Your task to perform on an android device: Open CNN.com Image 0: 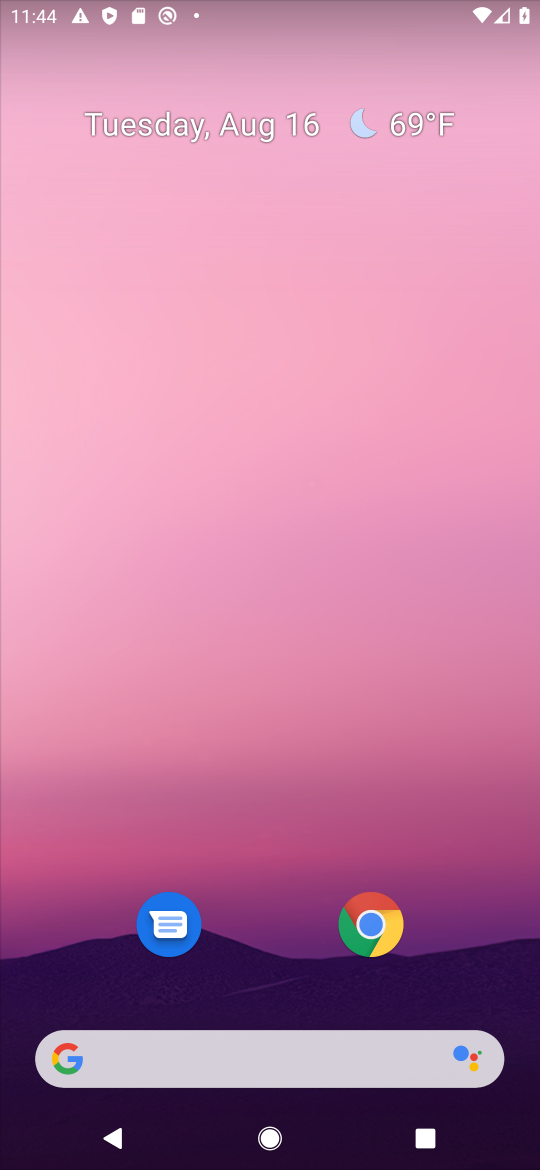
Step 0: click (179, 1073)
Your task to perform on an android device: Open CNN.com Image 1: 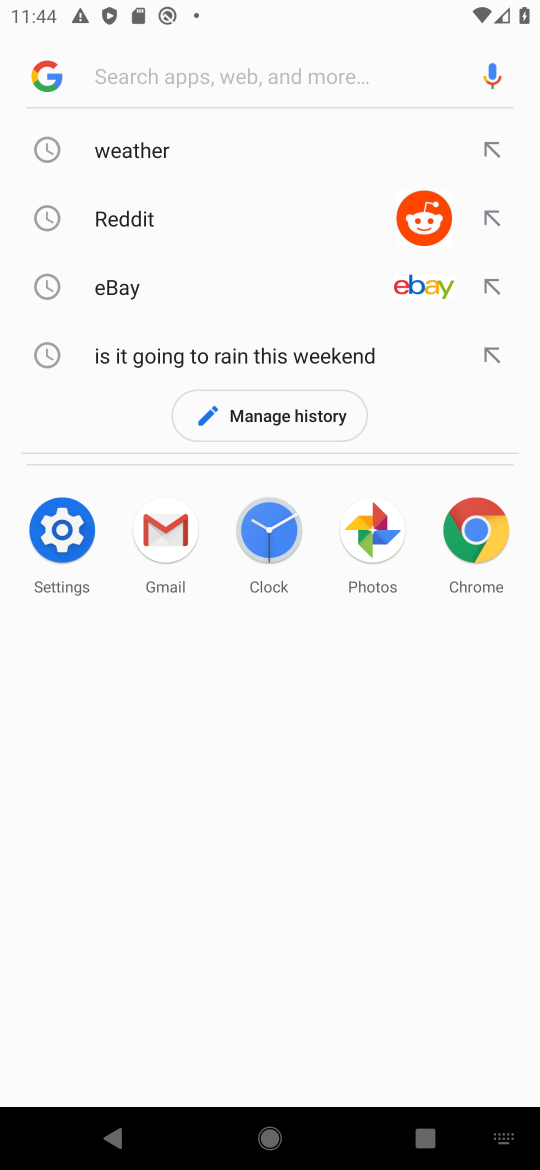
Step 1: type "cnn"
Your task to perform on an android device: Open CNN.com Image 2: 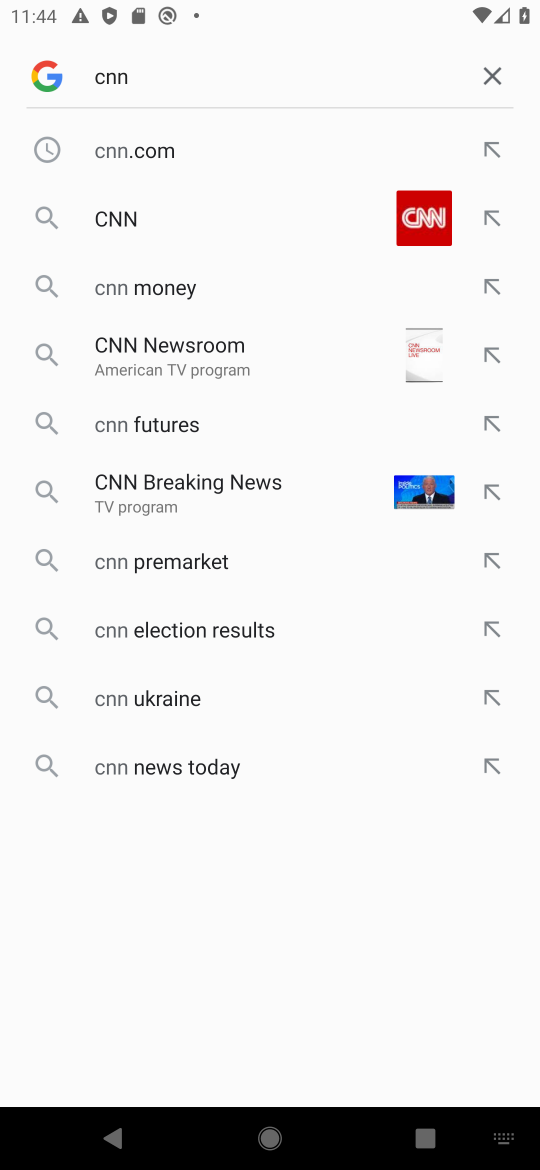
Step 2: click (237, 219)
Your task to perform on an android device: Open CNN.com Image 3: 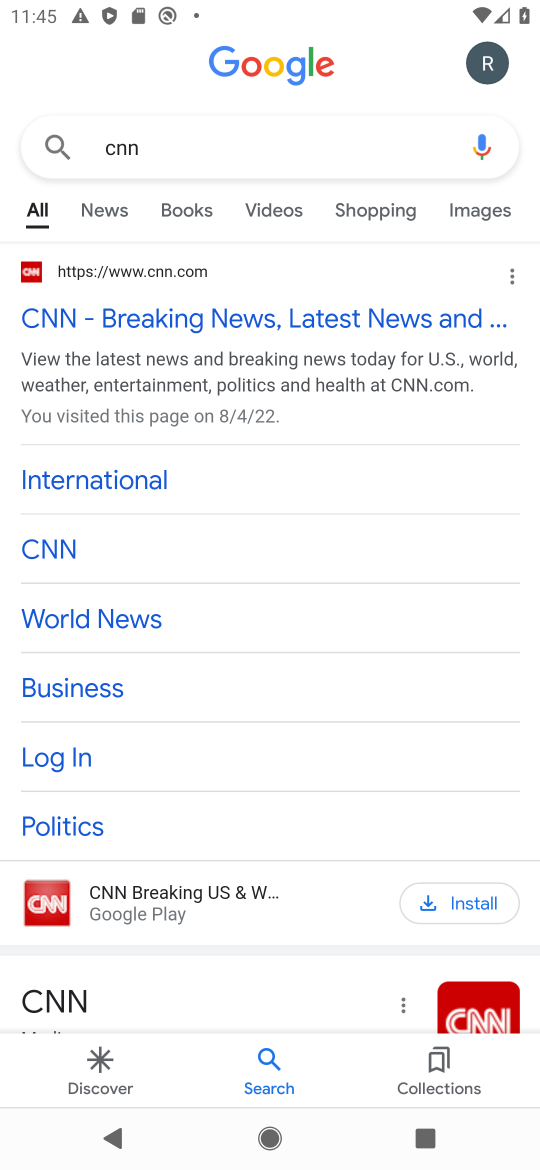
Step 3: click (249, 322)
Your task to perform on an android device: Open CNN.com Image 4: 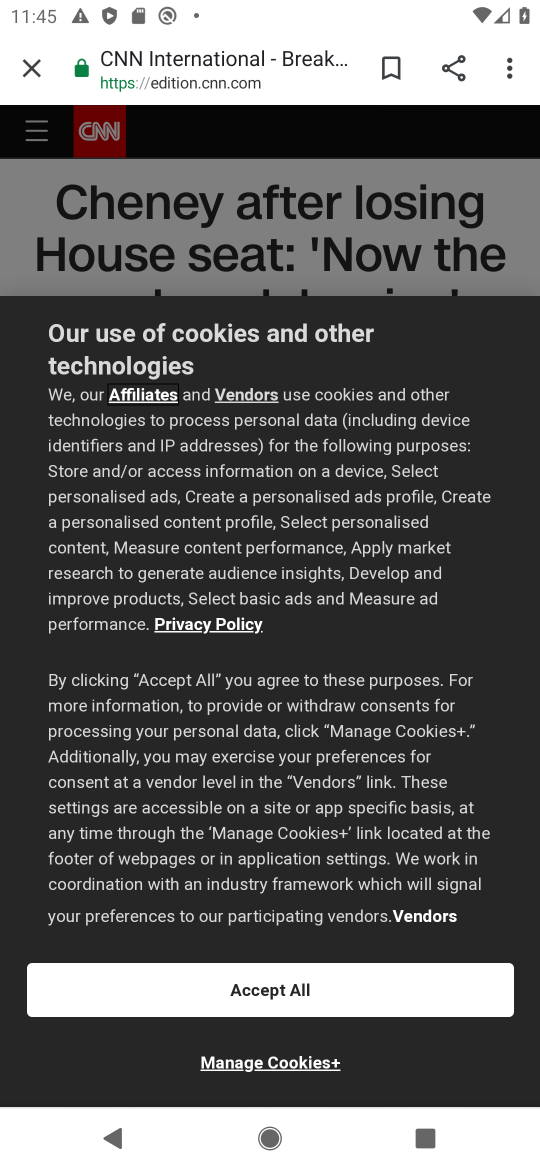
Step 4: task complete